Your task to perform on an android device: Open my contact list Image 0: 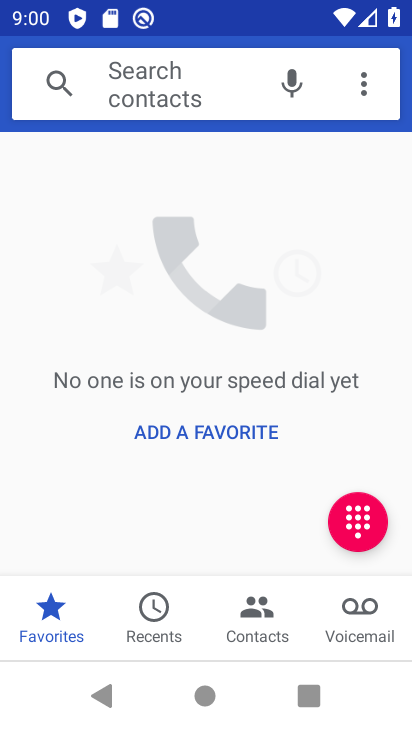
Step 0: click (271, 623)
Your task to perform on an android device: Open my contact list Image 1: 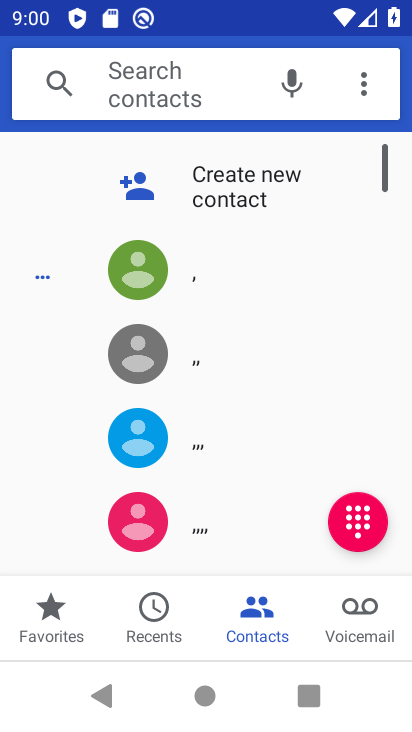
Step 1: task complete